Your task to perform on an android device: Open internet settings Image 0: 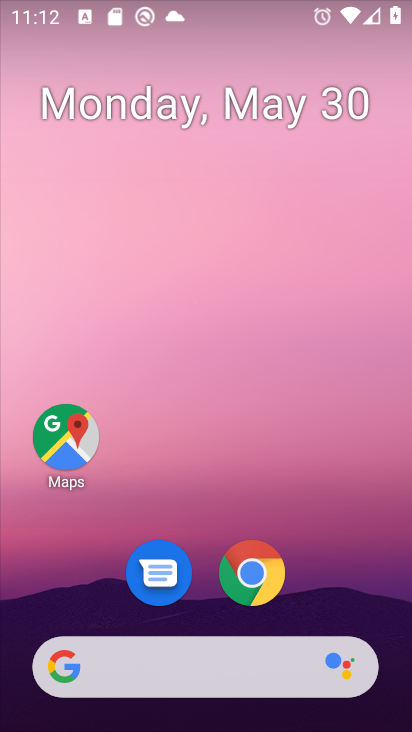
Step 0: drag from (141, 693) to (160, 123)
Your task to perform on an android device: Open internet settings Image 1: 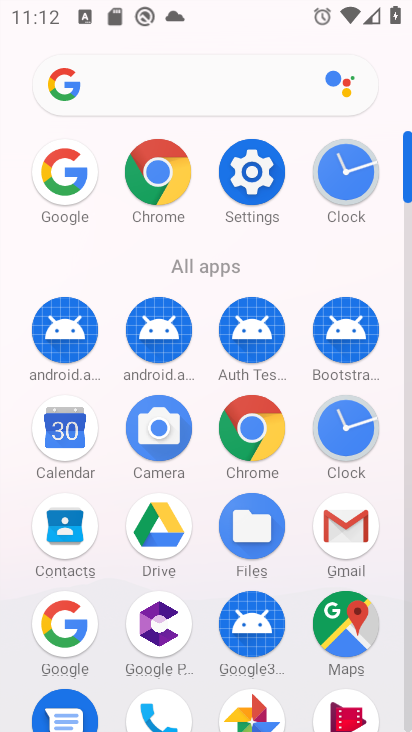
Step 1: click (237, 193)
Your task to perform on an android device: Open internet settings Image 2: 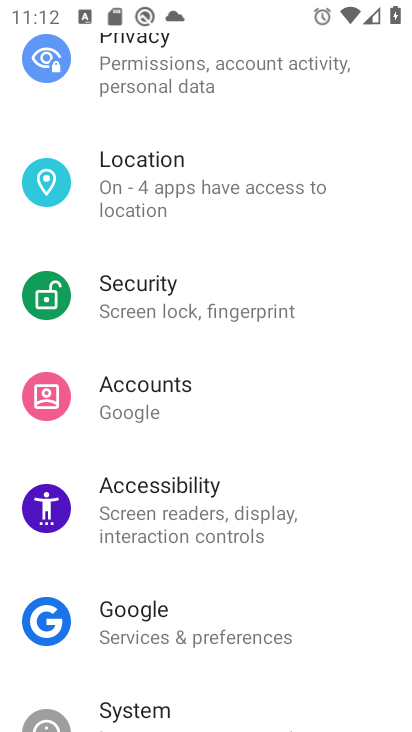
Step 2: drag from (234, 219) to (83, 683)
Your task to perform on an android device: Open internet settings Image 3: 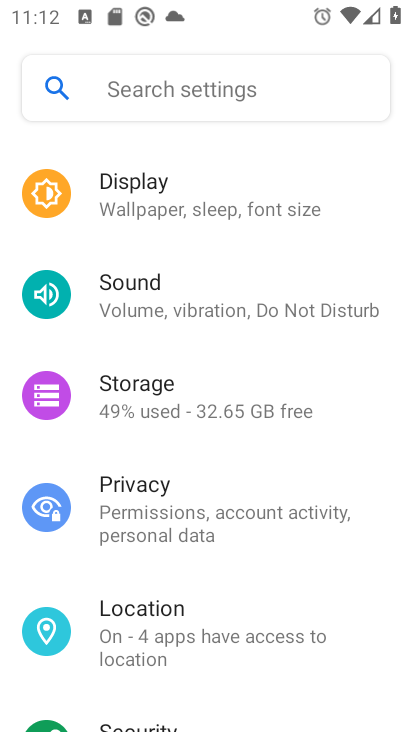
Step 3: drag from (206, 218) to (53, 685)
Your task to perform on an android device: Open internet settings Image 4: 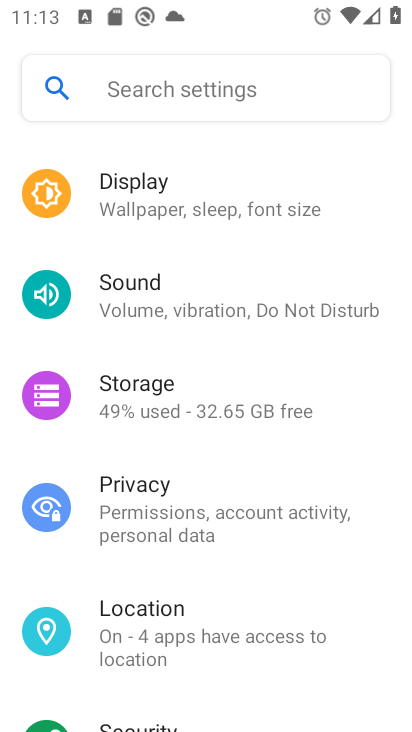
Step 4: drag from (274, 344) to (403, 452)
Your task to perform on an android device: Open internet settings Image 5: 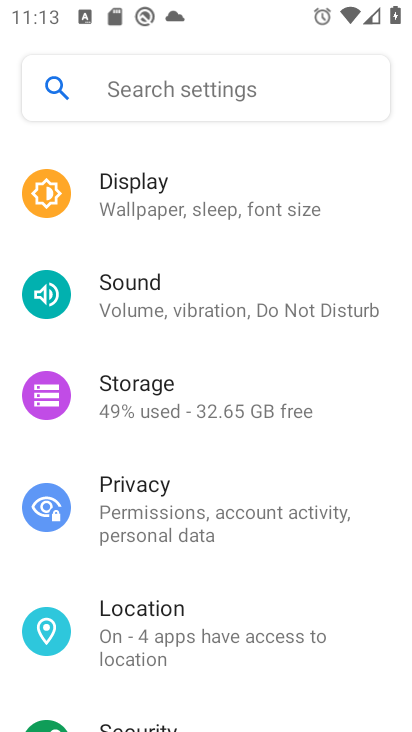
Step 5: drag from (240, 265) to (404, 589)
Your task to perform on an android device: Open internet settings Image 6: 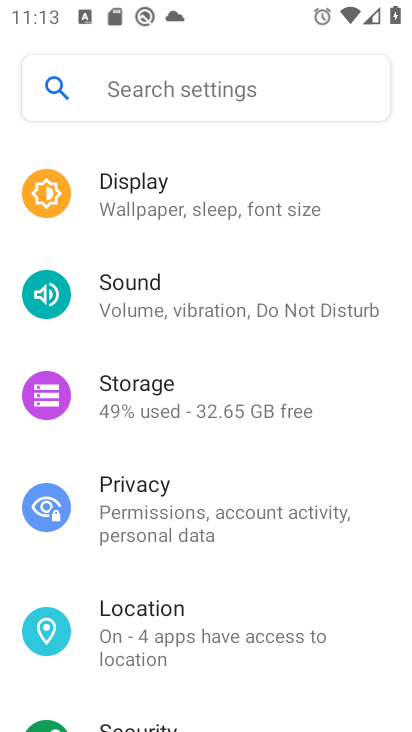
Step 6: drag from (288, 289) to (241, 604)
Your task to perform on an android device: Open internet settings Image 7: 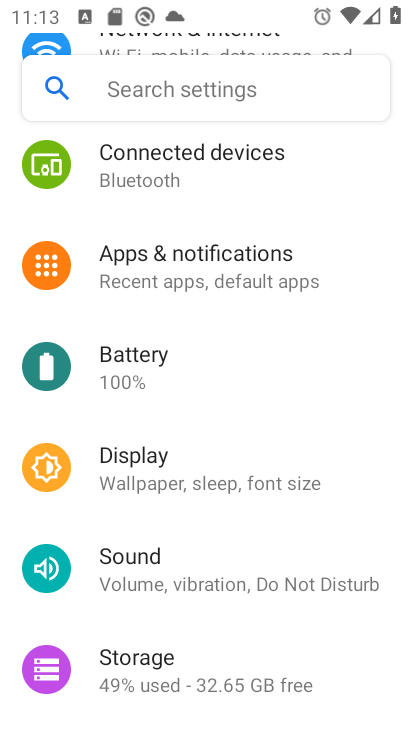
Step 7: drag from (191, 428) to (174, 584)
Your task to perform on an android device: Open internet settings Image 8: 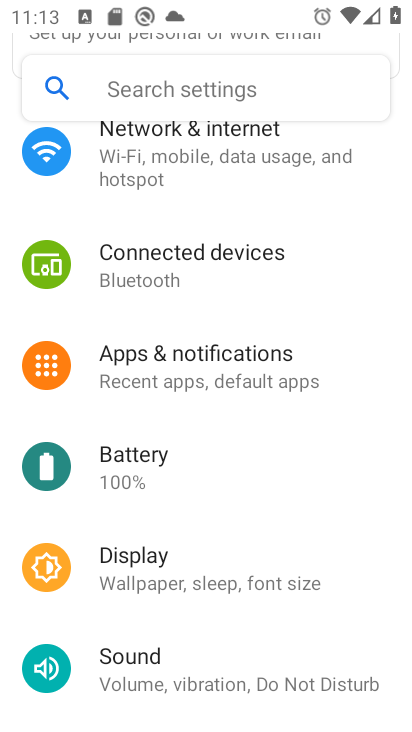
Step 8: drag from (230, 313) to (240, 632)
Your task to perform on an android device: Open internet settings Image 9: 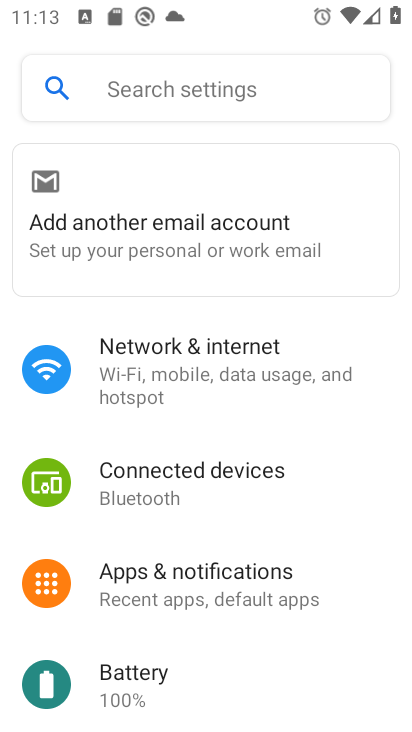
Step 9: click (240, 385)
Your task to perform on an android device: Open internet settings Image 10: 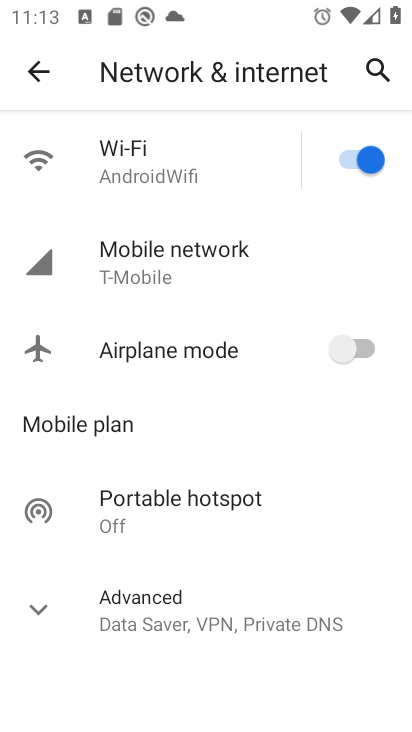
Step 10: click (167, 271)
Your task to perform on an android device: Open internet settings Image 11: 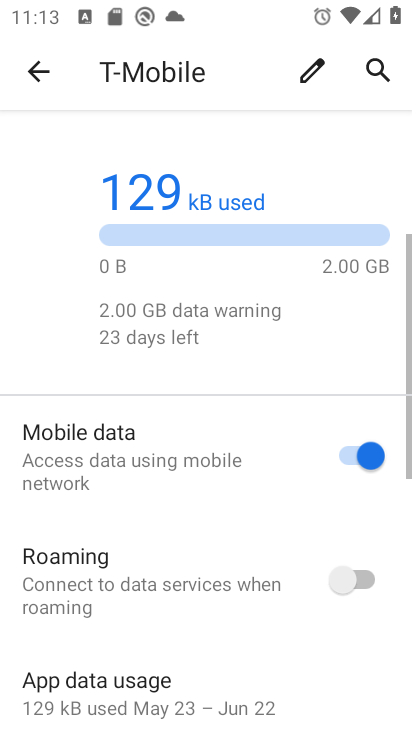
Step 11: task complete